Your task to perform on an android device: Go to Maps Image 0: 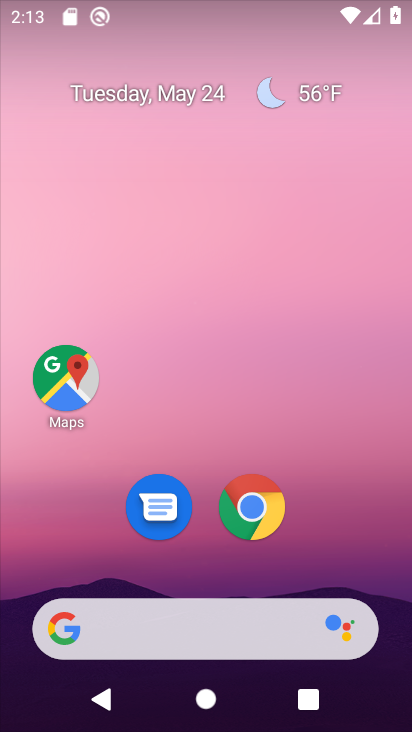
Step 0: click (69, 373)
Your task to perform on an android device: Go to Maps Image 1: 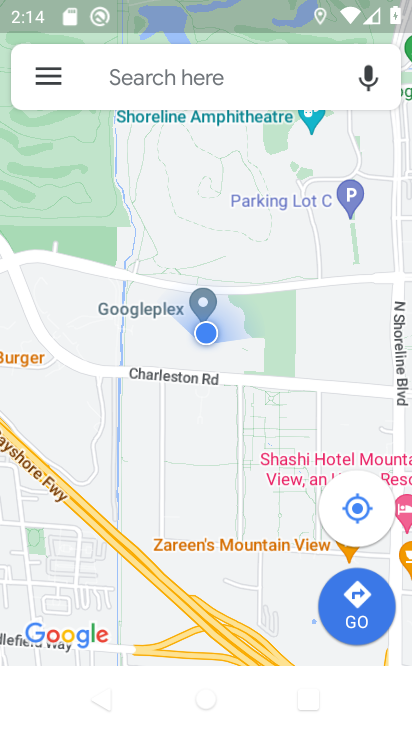
Step 1: task complete